Your task to perform on an android device: change alarm snooze length Image 0: 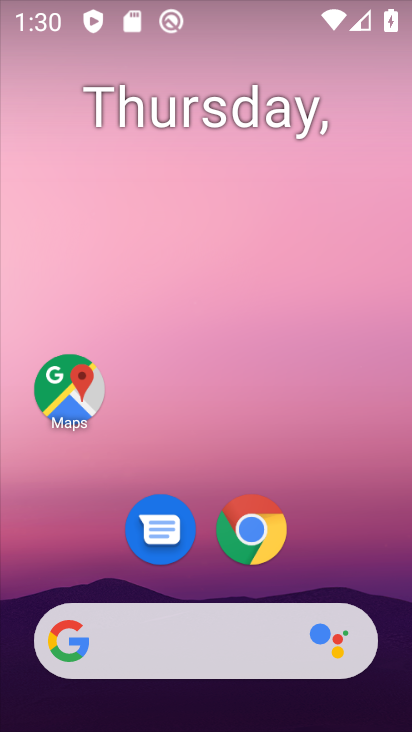
Step 0: drag from (368, 718) to (366, 170)
Your task to perform on an android device: change alarm snooze length Image 1: 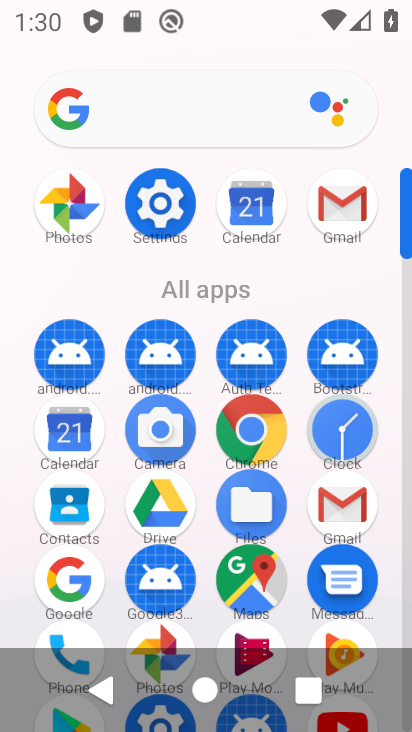
Step 1: click (342, 425)
Your task to perform on an android device: change alarm snooze length Image 2: 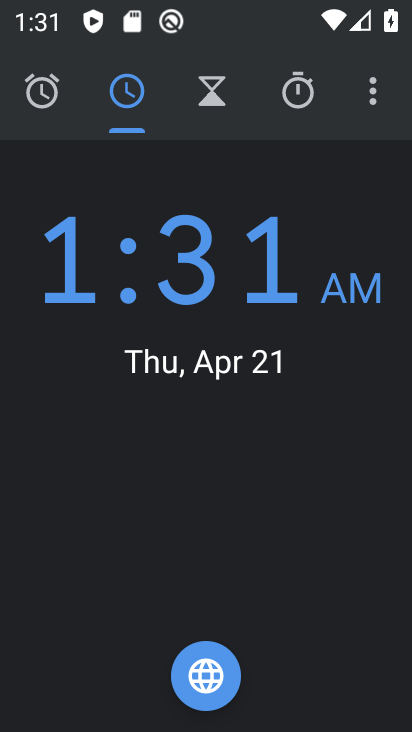
Step 2: click (374, 96)
Your task to perform on an android device: change alarm snooze length Image 3: 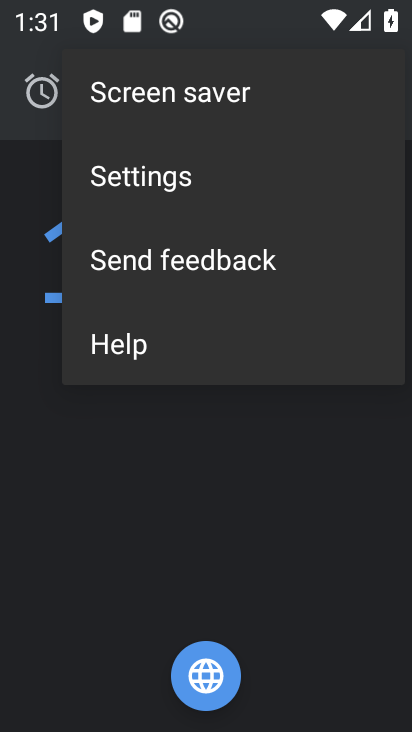
Step 3: click (188, 176)
Your task to perform on an android device: change alarm snooze length Image 4: 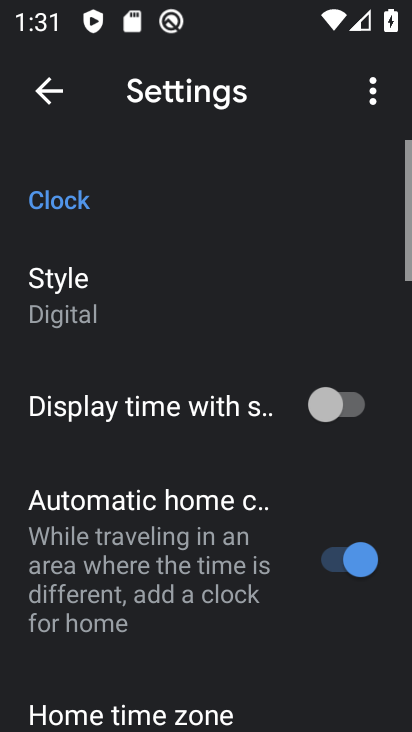
Step 4: drag from (90, 580) to (211, 245)
Your task to perform on an android device: change alarm snooze length Image 5: 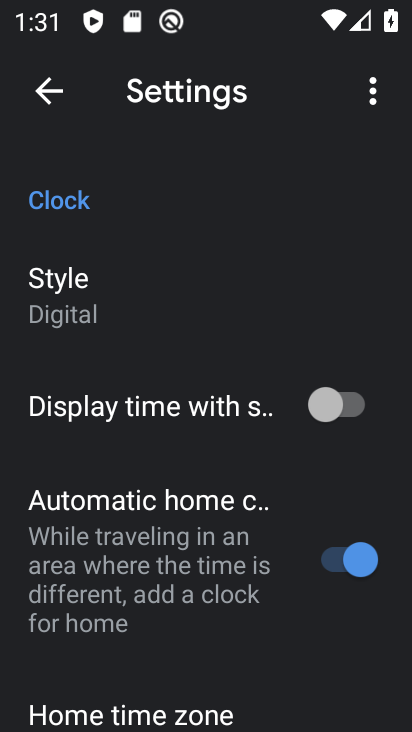
Step 5: drag from (150, 644) to (273, 228)
Your task to perform on an android device: change alarm snooze length Image 6: 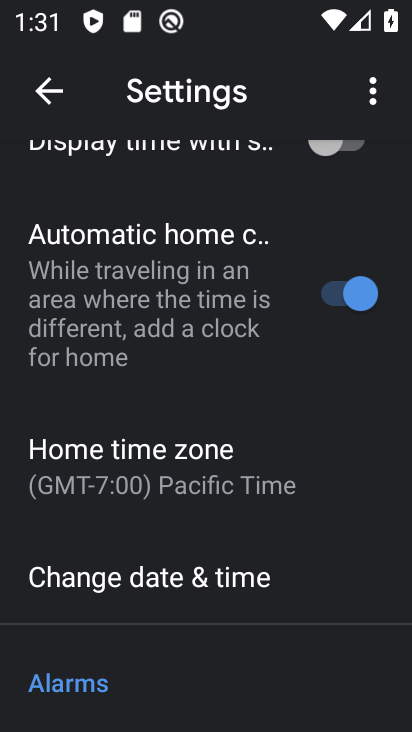
Step 6: drag from (125, 626) to (255, 214)
Your task to perform on an android device: change alarm snooze length Image 7: 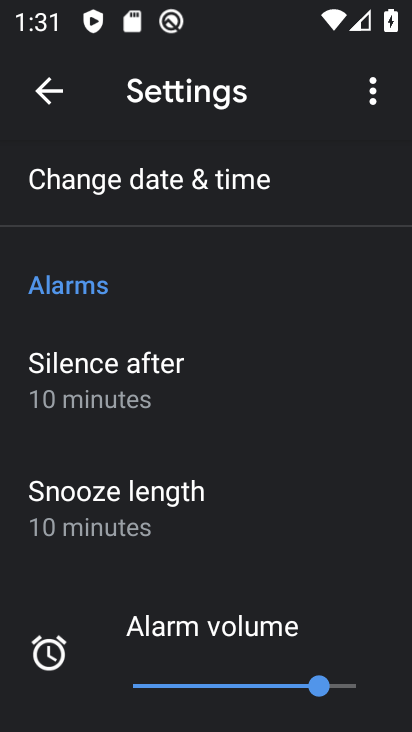
Step 7: click (131, 526)
Your task to perform on an android device: change alarm snooze length Image 8: 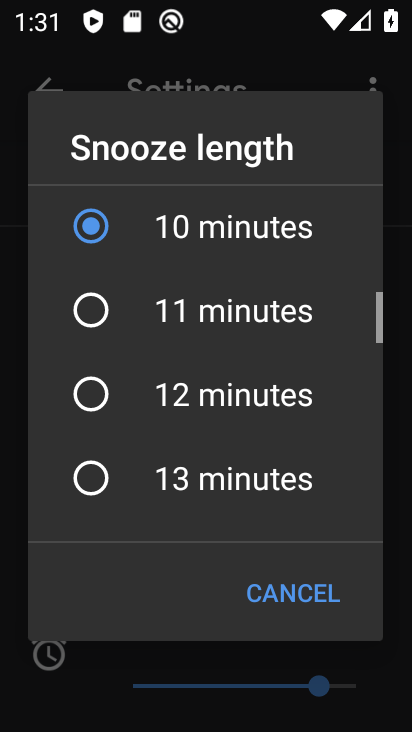
Step 8: click (161, 311)
Your task to perform on an android device: change alarm snooze length Image 9: 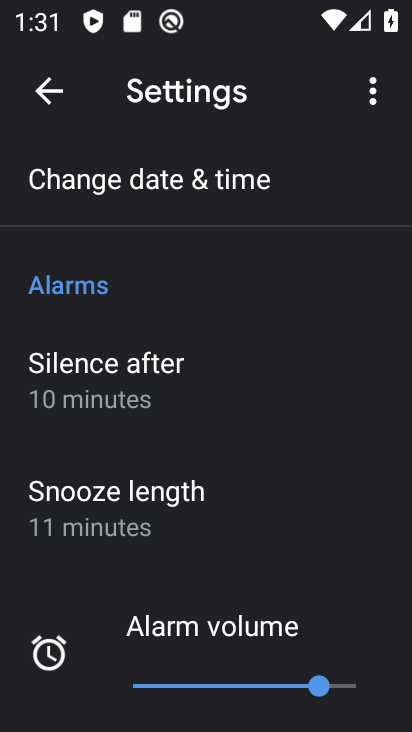
Step 9: task complete